Your task to perform on an android device: Play the last video I watched on Youtube Image 0: 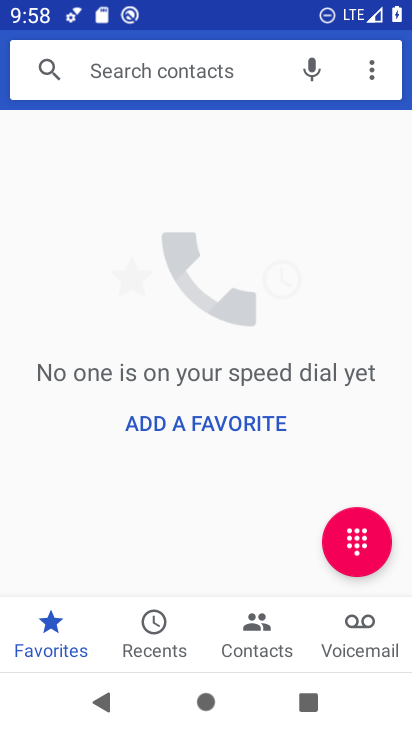
Step 0: press home button
Your task to perform on an android device: Play the last video I watched on Youtube Image 1: 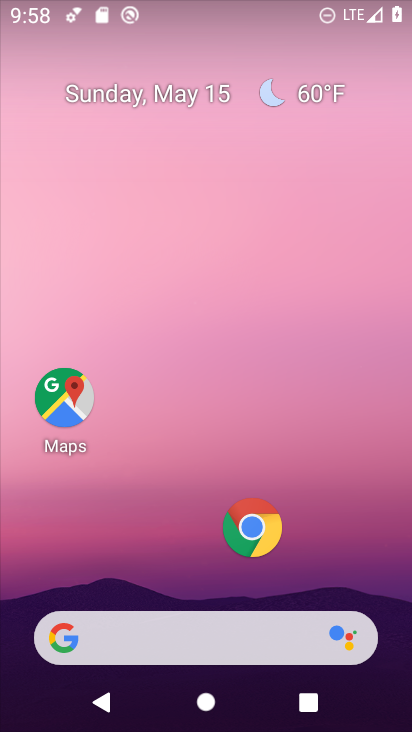
Step 1: drag from (189, 574) to (219, 39)
Your task to perform on an android device: Play the last video I watched on Youtube Image 2: 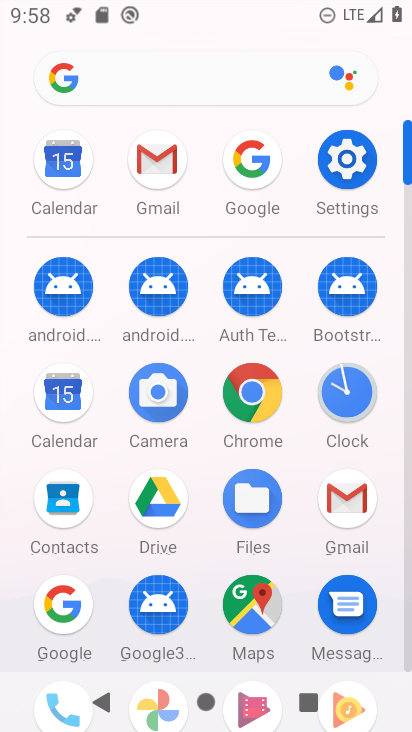
Step 2: drag from (201, 621) to (203, 142)
Your task to perform on an android device: Play the last video I watched on Youtube Image 3: 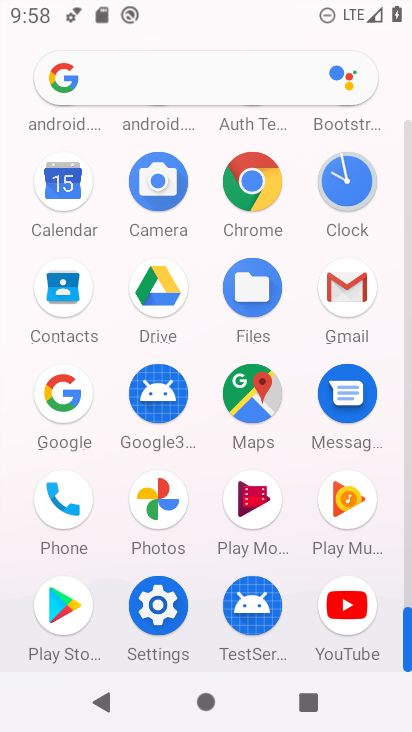
Step 3: click (350, 601)
Your task to perform on an android device: Play the last video I watched on Youtube Image 4: 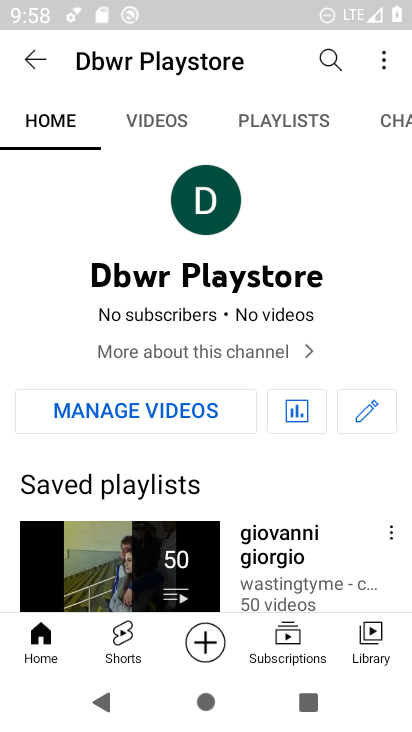
Step 4: click (33, 55)
Your task to perform on an android device: Play the last video I watched on Youtube Image 5: 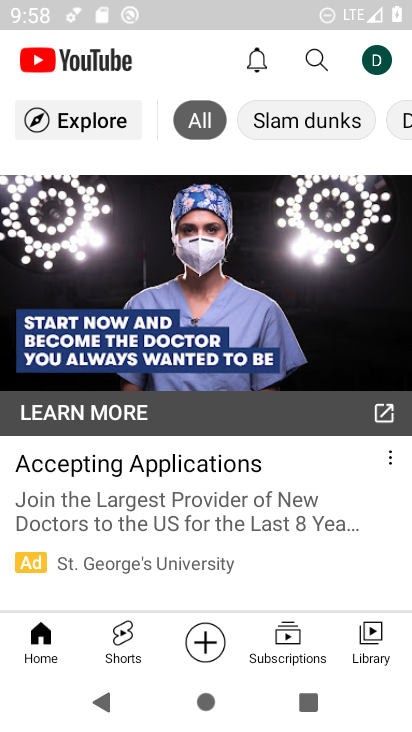
Step 5: click (386, 639)
Your task to perform on an android device: Play the last video I watched on Youtube Image 6: 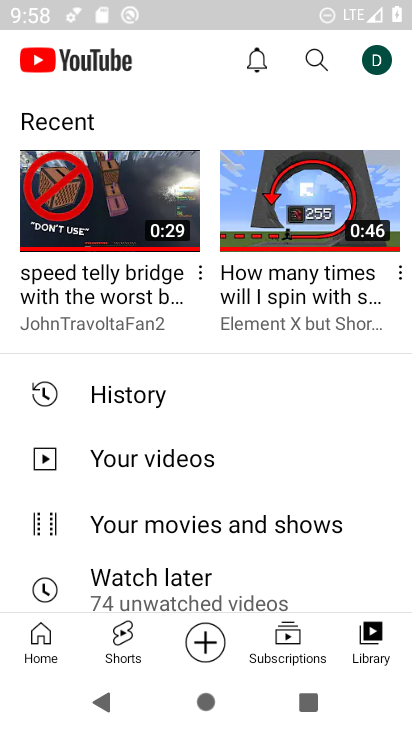
Step 6: click (90, 187)
Your task to perform on an android device: Play the last video I watched on Youtube Image 7: 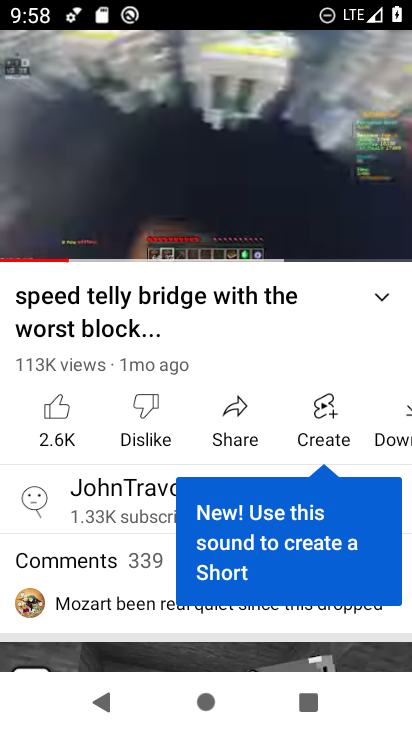
Step 7: task complete